Your task to perform on an android device: Open the phone app and click the voicemail tab. Image 0: 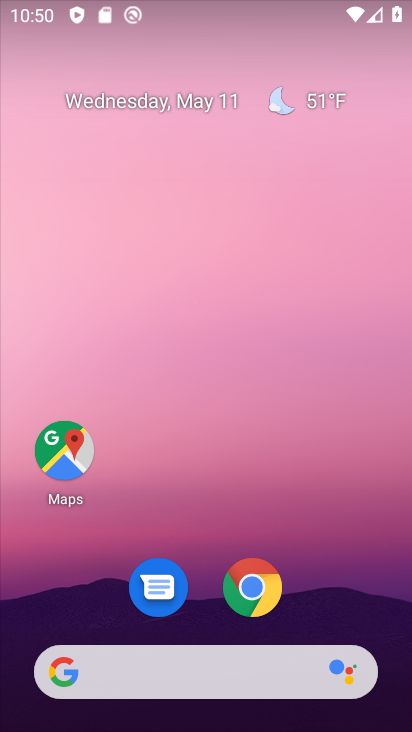
Step 0: drag from (196, 617) to (318, 59)
Your task to perform on an android device: Open the phone app and click the voicemail tab. Image 1: 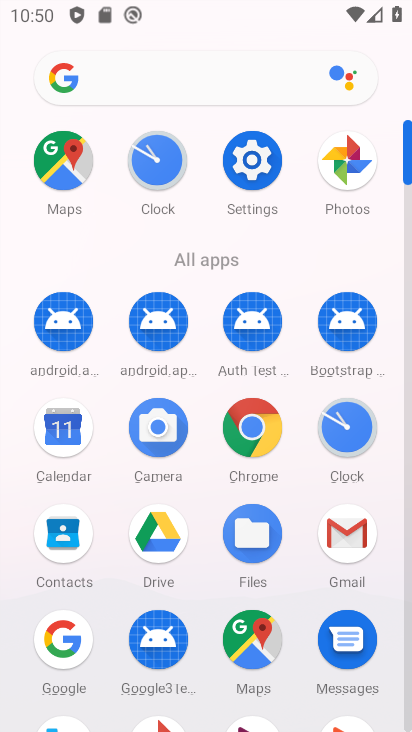
Step 1: drag from (183, 593) to (259, 53)
Your task to perform on an android device: Open the phone app and click the voicemail tab. Image 2: 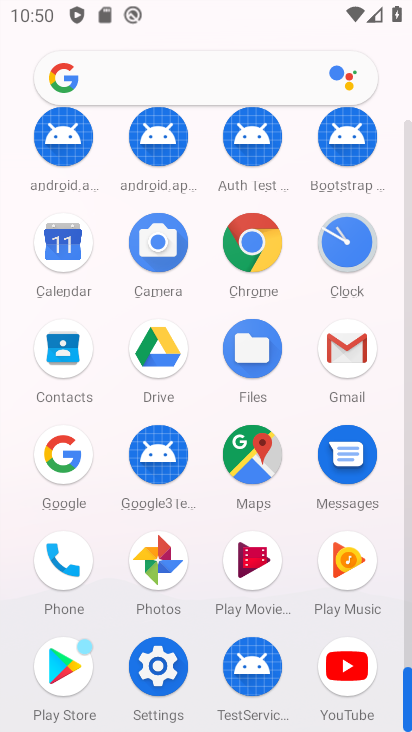
Step 2: click (52, 560)
Your task to perform on an android device: Open the phone app and click the voicemail tab. Image 3: 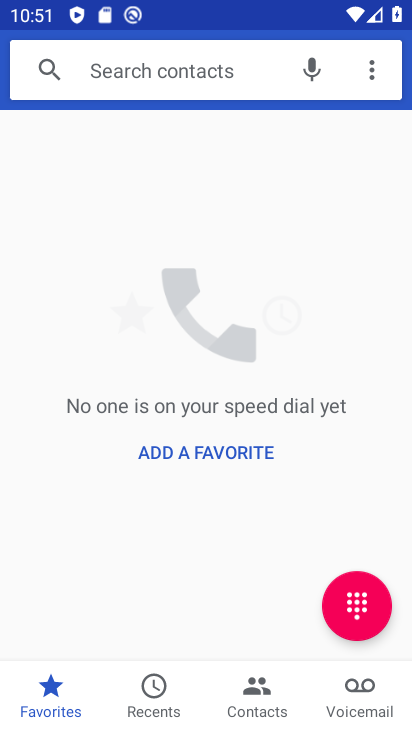
Step 3: click (344, 701)
Your task to perform on an android device: Open the phone app and click the voicemail tab. Image 4: 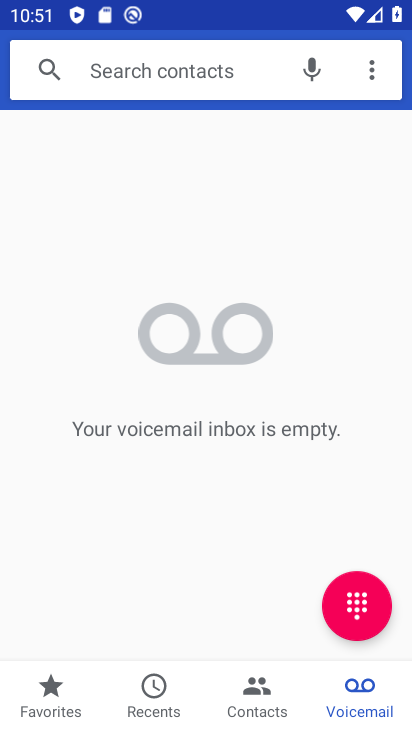
Step 4: task complete